Your task to perform on an android device: Open sound settings Image 0: 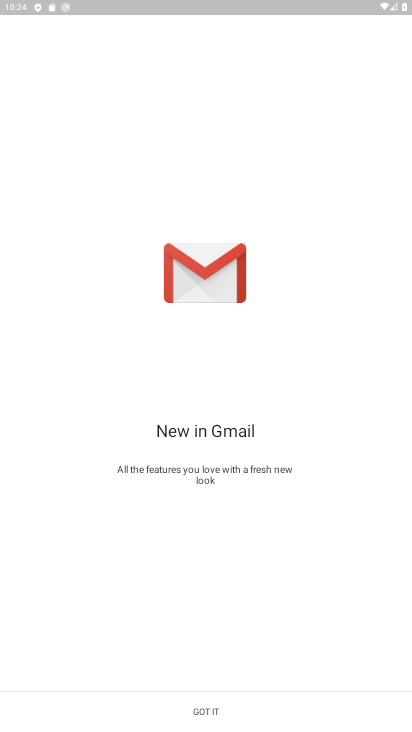
Step 0: press home button
Your task to perform on an android device: Open sound settings Image 1: 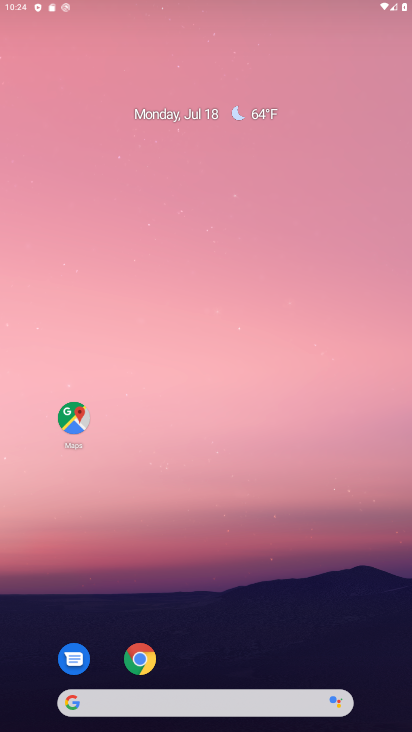
Step 1: drag from (207, 659) to (229, 81)
Your task to perform on an android device: Open sound settings Image 2: 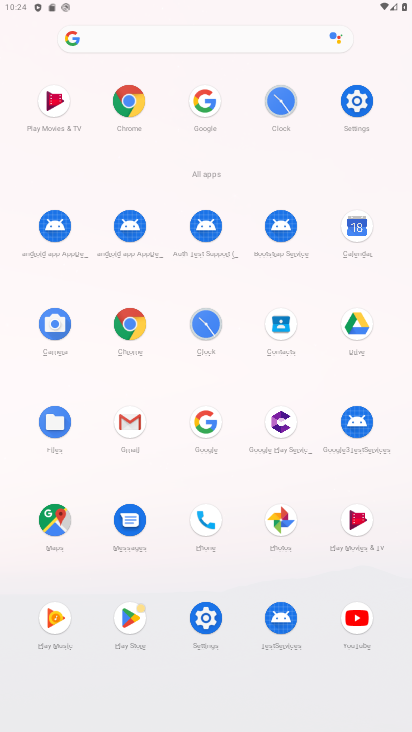
Step 2: click (358, 101)
Your task to perform on an android device: Open sound settings Image 3: 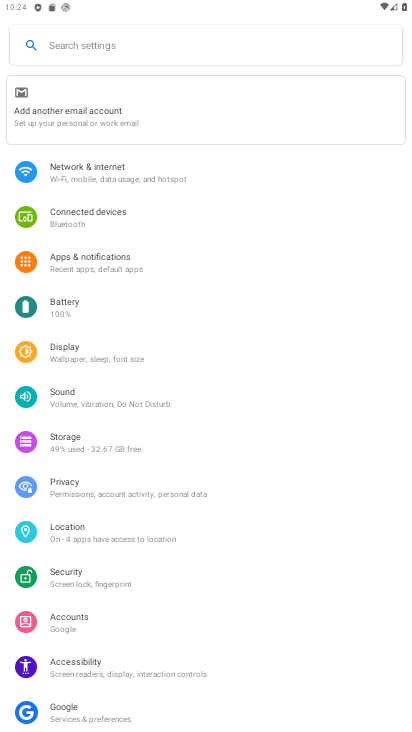
Step 3: click (116, 398)
Your task to perform on an android device: Open sound settings Image 4: 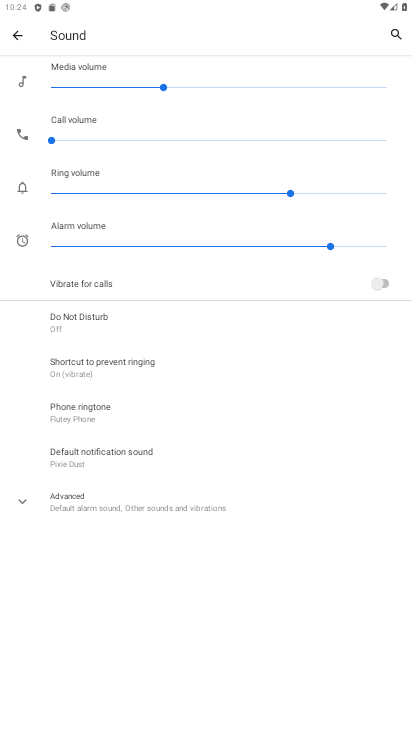
Step 4: task complete